Your task to perform on an android device: Turn on the flashlight Image 0: 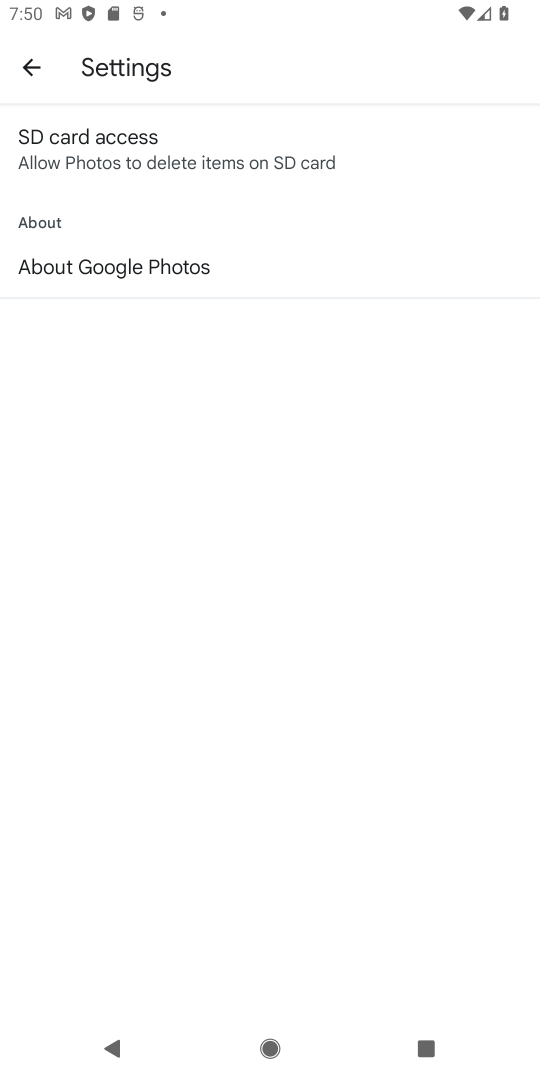
Step 0: press home button
Your task to perform on an android device: Turn on the flashlight Image 1: 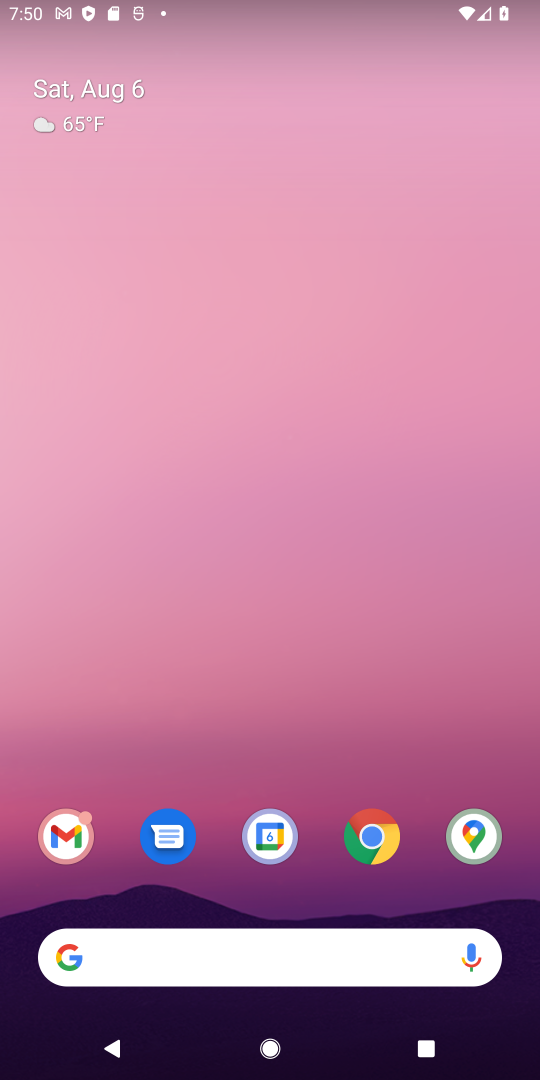
Step 1: drag from (273, 14) to (327, 680)
Your task to perform on an android device: Turn on the flashlight Image 2: 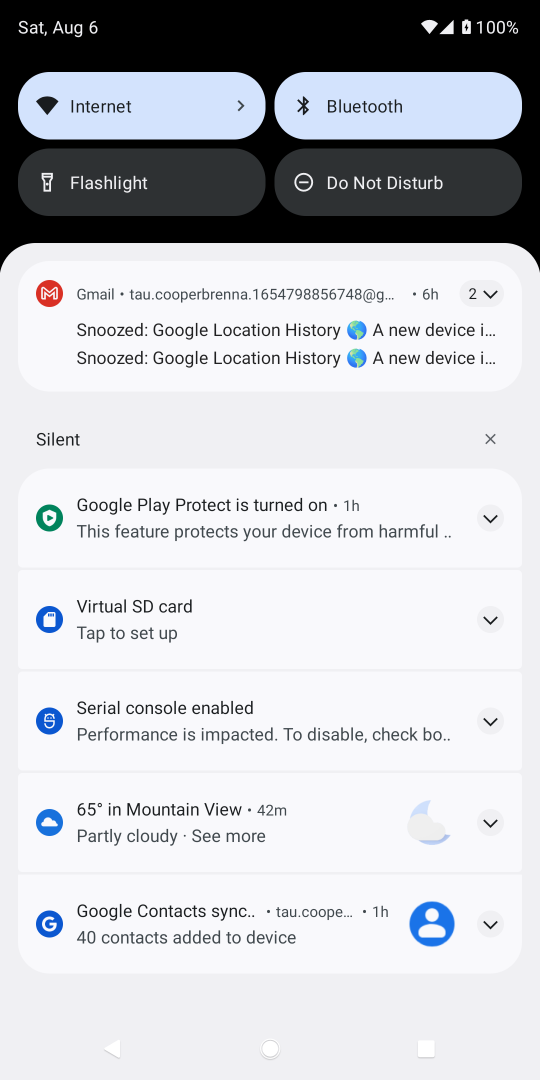
Step 2: click (125, 191)
Your task to perform on an android device: Turn on the flashlight Image 3: 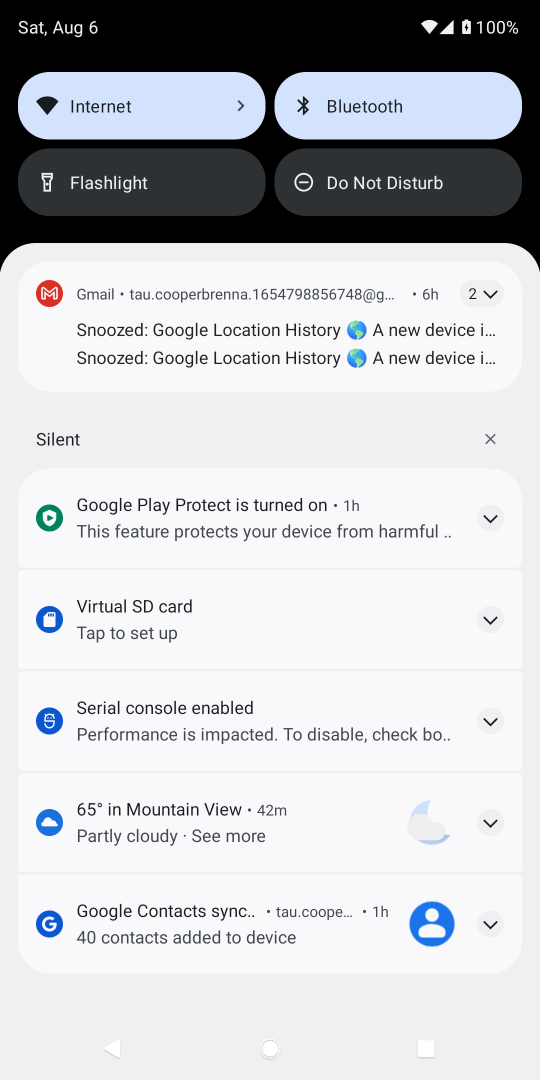
Step 3: task complete